Your task to perform on an android device: Open internet settings Image 0: 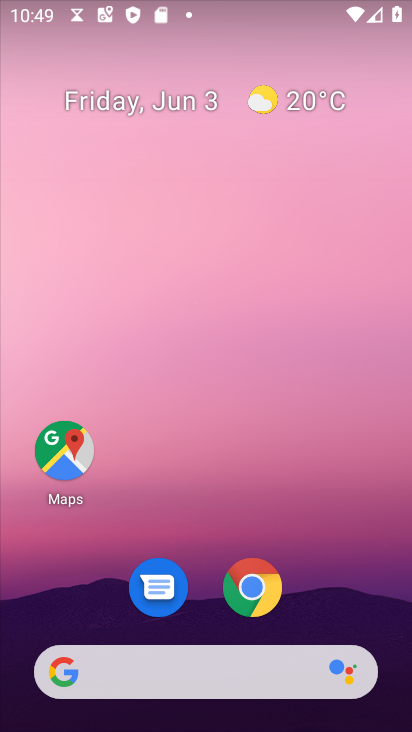
Step 0: drag from (351, 523) to (146, 19)
Your task to perform on an android device: Open internet settings Image 1: 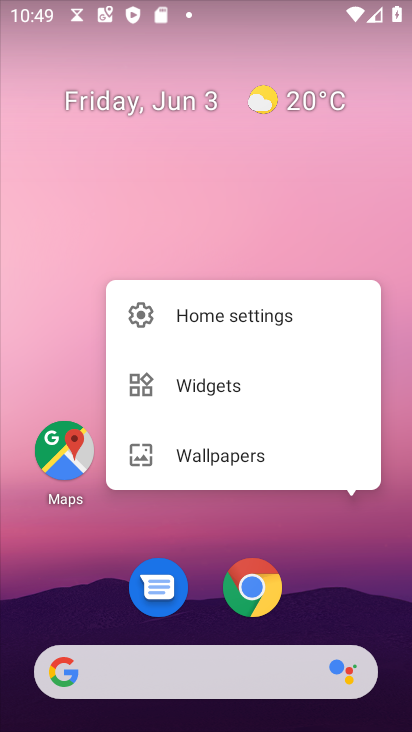
Step 1: drag from (336, 564) to (111, 13)
Your task to perform on an android device: Open internet settings Image 2: 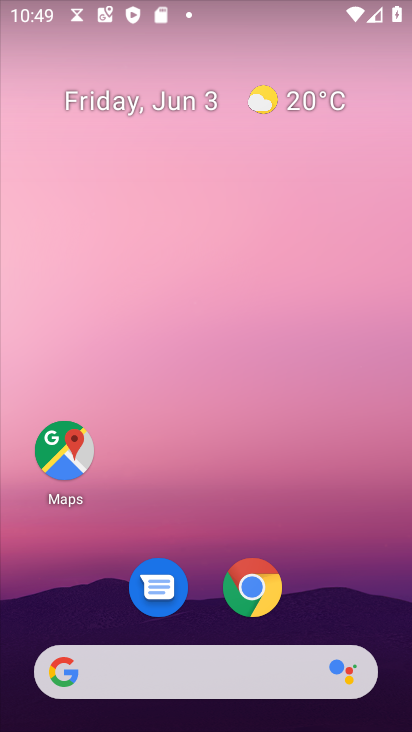
Step 2: drag from (352, 584) to (160, 51)
Your task to perform on an android device: Open internet settings Image 3: 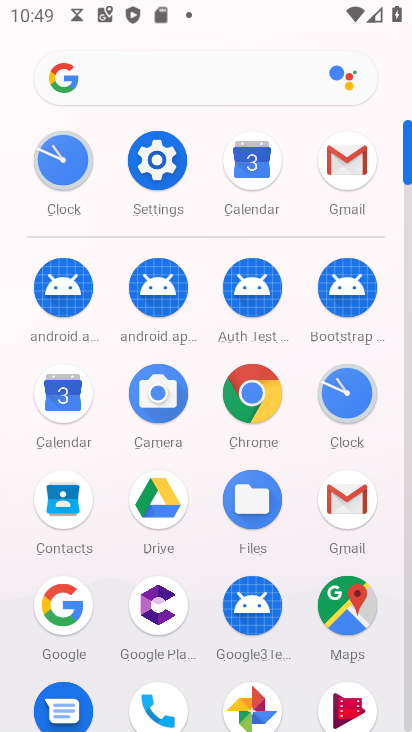
Step 3: click (164, 147)
Your task to perform on an android device: Open internet settings Image 4: 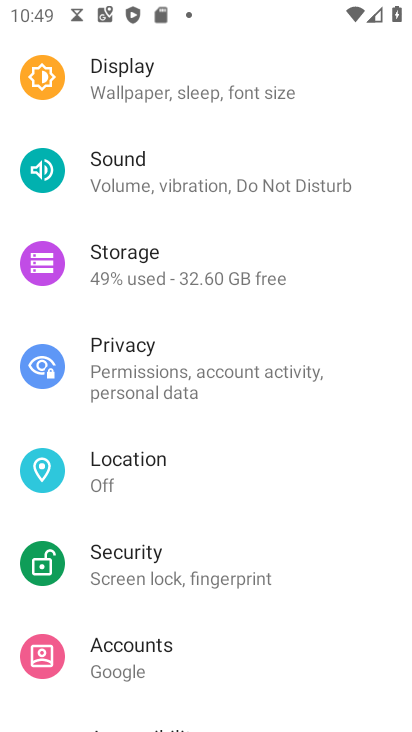
Step 4: drag from (224, 155) to (263, 727)
Your task to perform on an android device: Open internet settings Image 5: 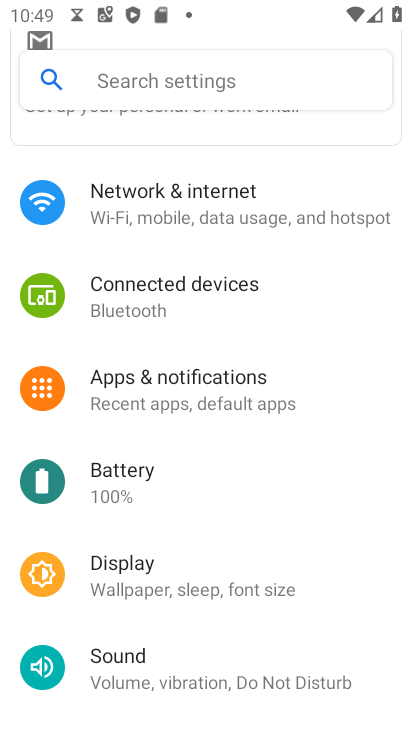
Step 5: click (197, 209)
Your task to perform on an android device: Open internet settings Image 6: 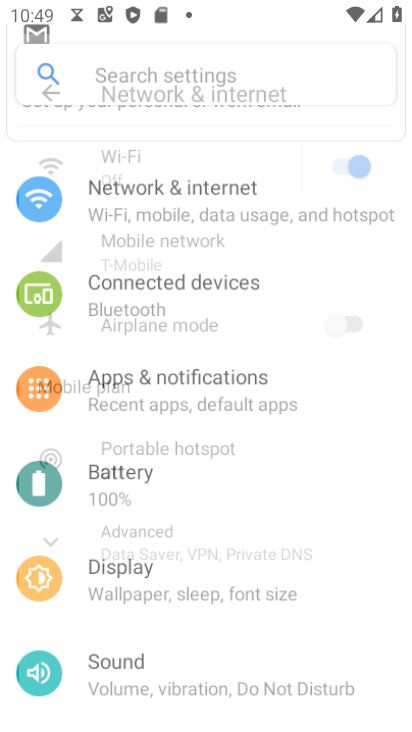
Step 6: task complete